Your task to perform on an android device: What time is it in Los Angeles? Image 0: 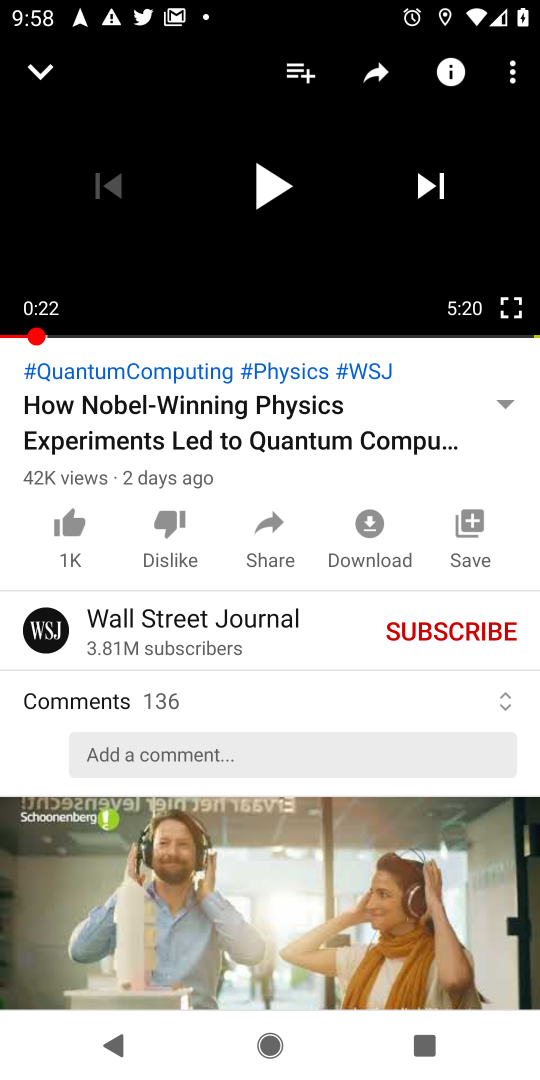
Step 0: press home button
Your task to perform on an android device: What time is it in Los Angeles? Image 1: 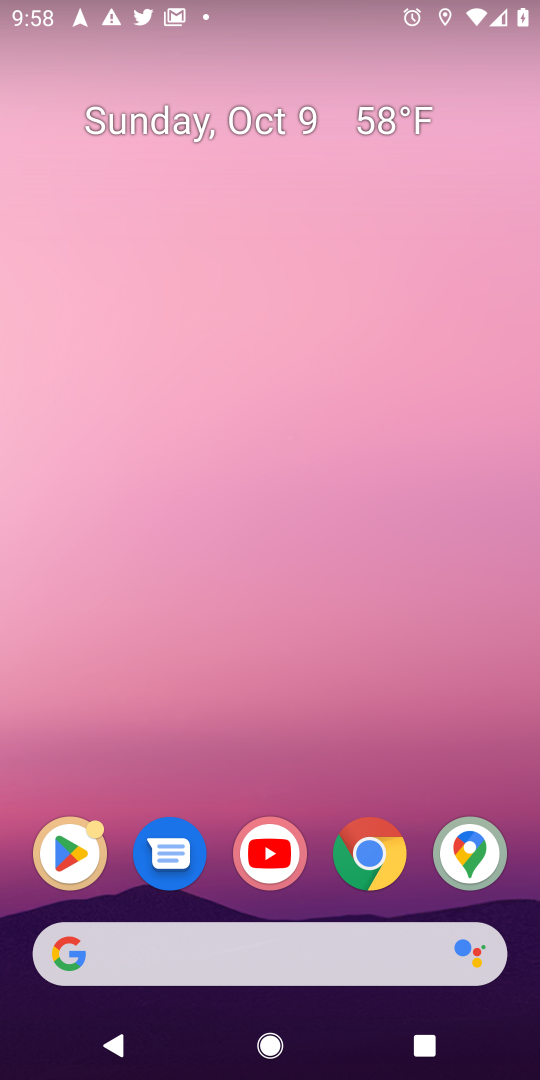
Step 1: click (362, 860)
Your task to perform on an android device: What time is it in Los Angeles? Image 2: 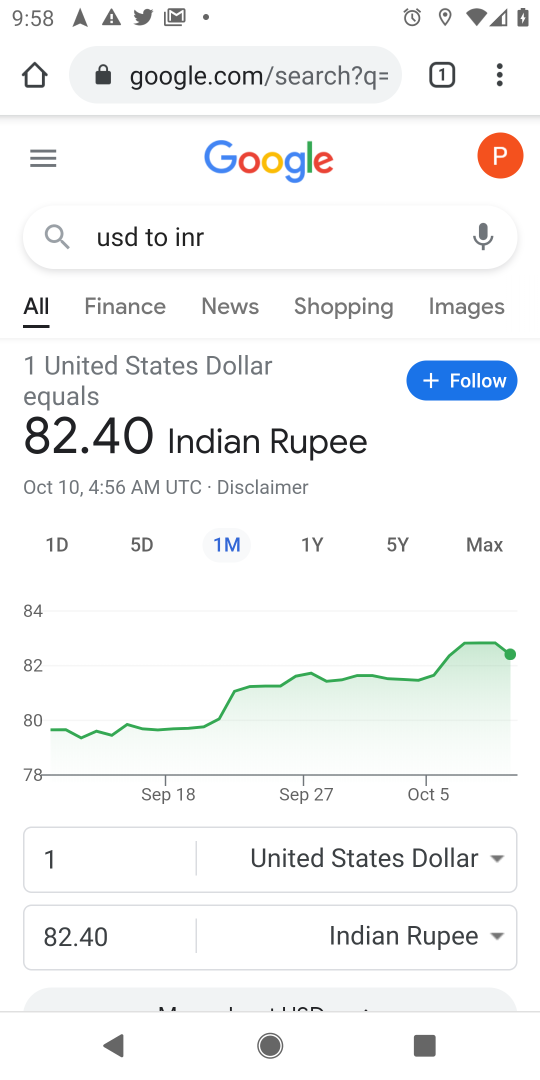
Step 2: click (340, 88)
Your task to perform on an android device: What time is it in Los Angeles? Image 3: 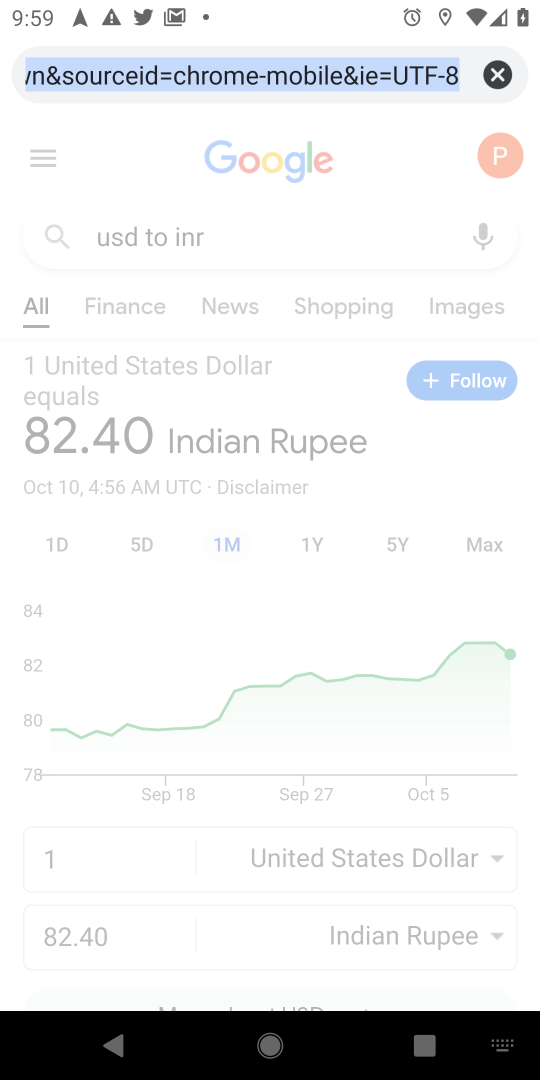
Step 3: type "time in la"
Your task to perform on an android device: What time is it in Los Angeles? Image 4: 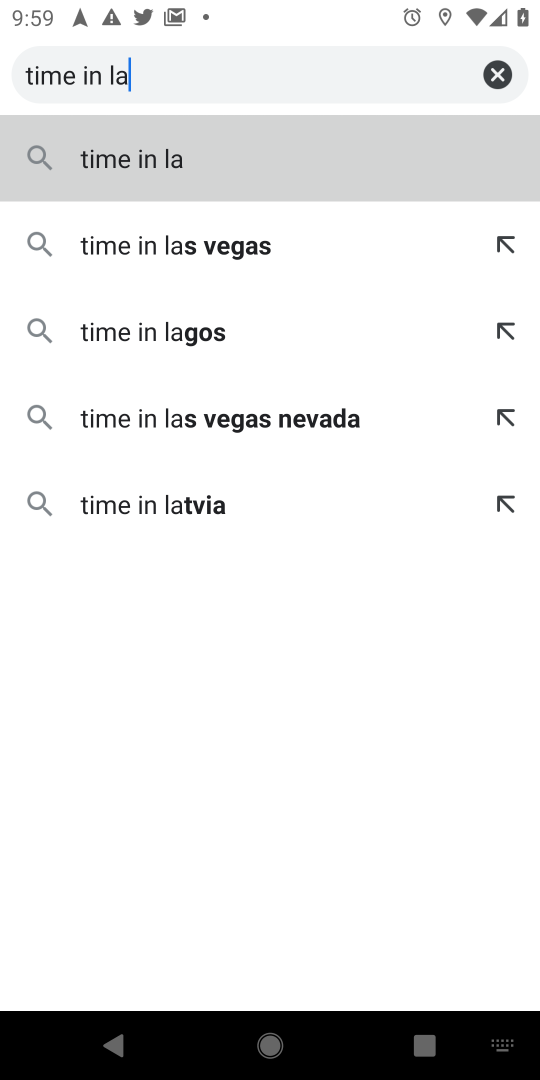
Step 4: click (169, 171)
Your task to perform on an android device: What time is it in Los Angeles? Image 5: 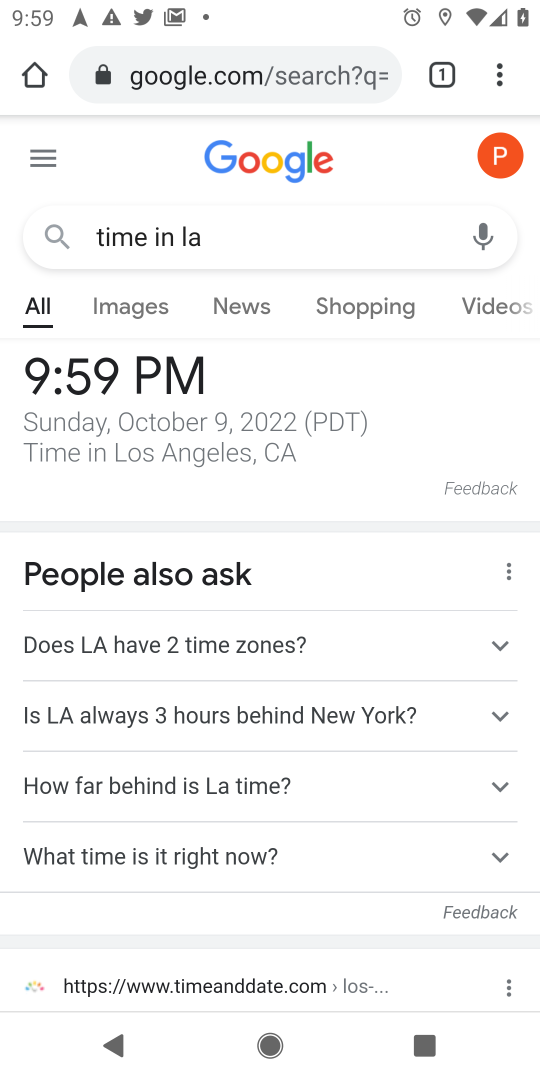
Step 5: task complete